Your task to perform on an android device: What's on my calendar today? Image 0: 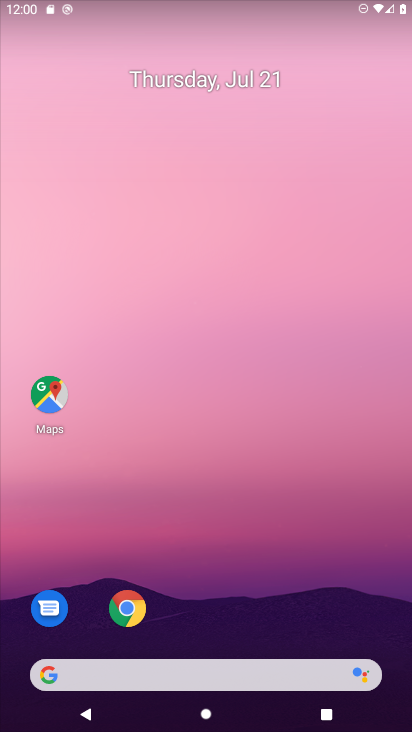
Step 0: press home button
Your task to perform on an android device: What's on my calendar today? Image 1: 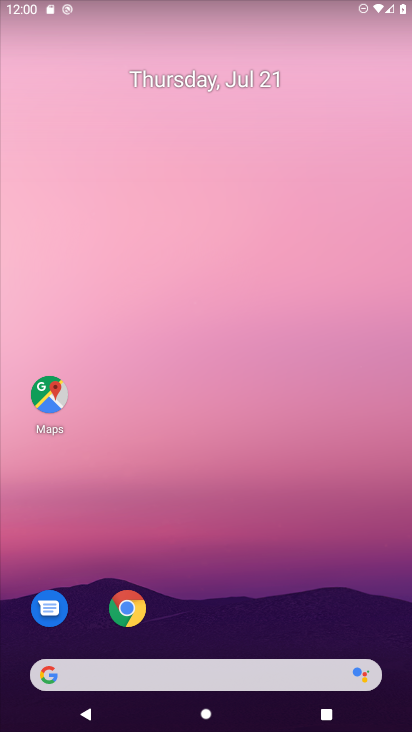
Step 1: drag from (234, 612) to (266, 138)
Your task to perform on an android device: What's on my calendar today? Image 2: 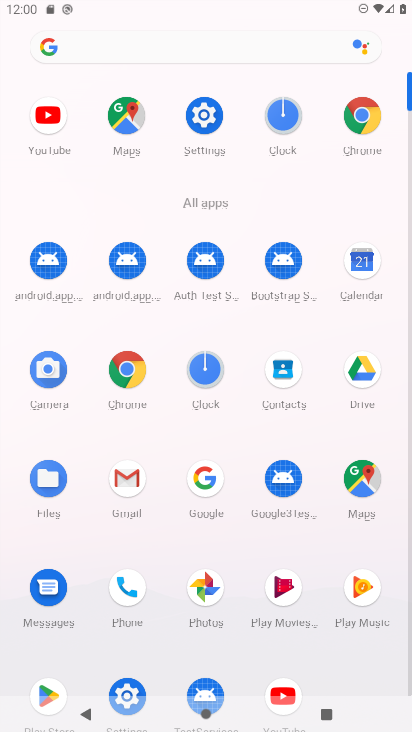
Step 2: click (367, 266)
Your task to perform on an android device: What's on my calendar today? Image 3: 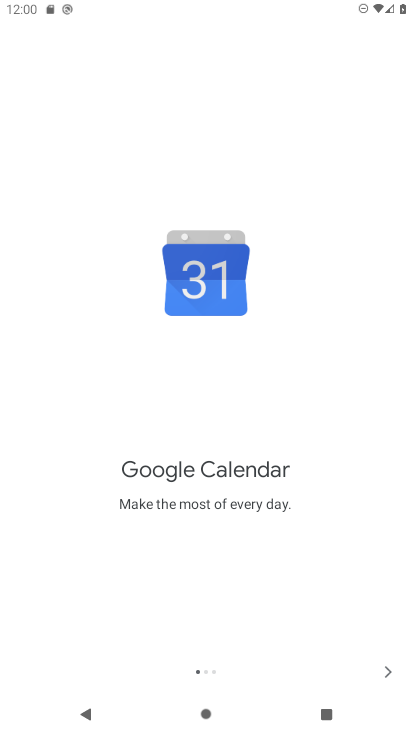
Step 3: click (388, 670)
Your task to perform on an android device: What's on my calendar today? Image 4: 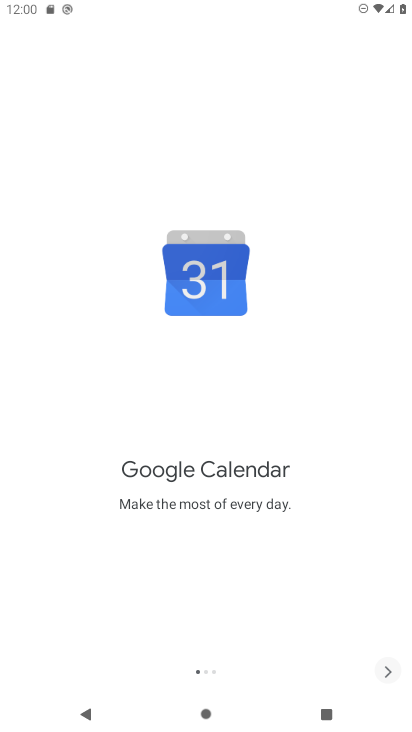
Step 4: click (388, 670)
Your task to perform on an android device: What's on my calendar today? Image 5: 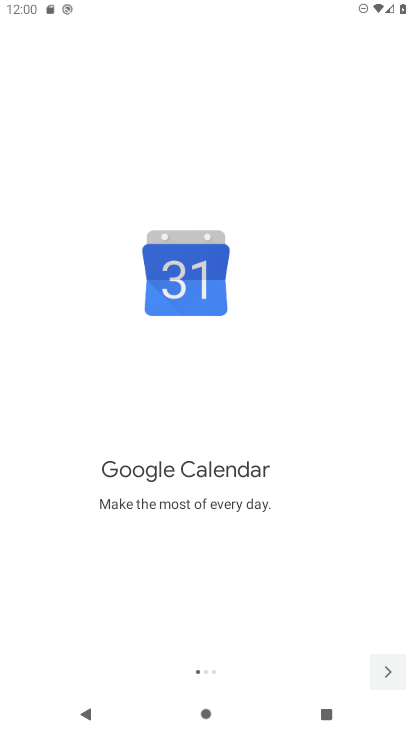
Step 5: click (388, 670)
Your task to perform on an android device: What's on my calendar today? Image 6: 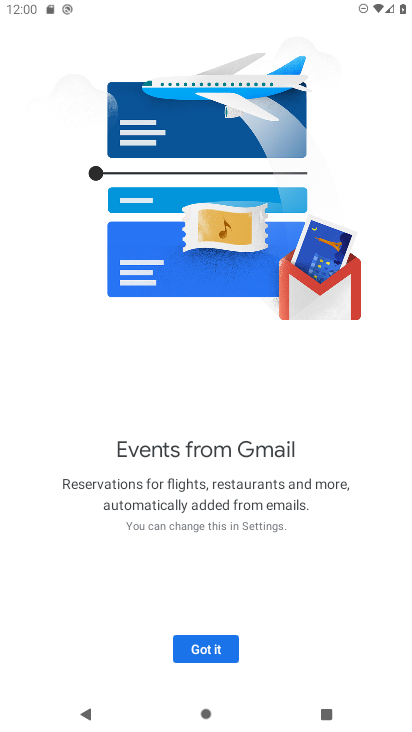
Step 6: click (385, 667)
Your task to perform on an android device: What's on my calendar today? Image 7: 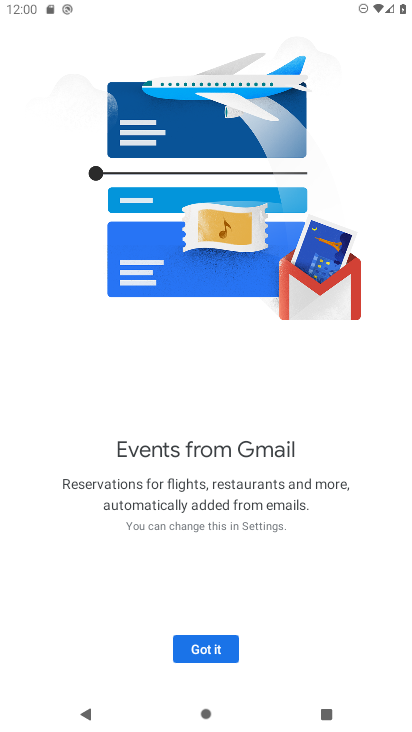
Step 7: click (204, 651)
Your task to perform on an android device: What's on my calendar today? Image 8: 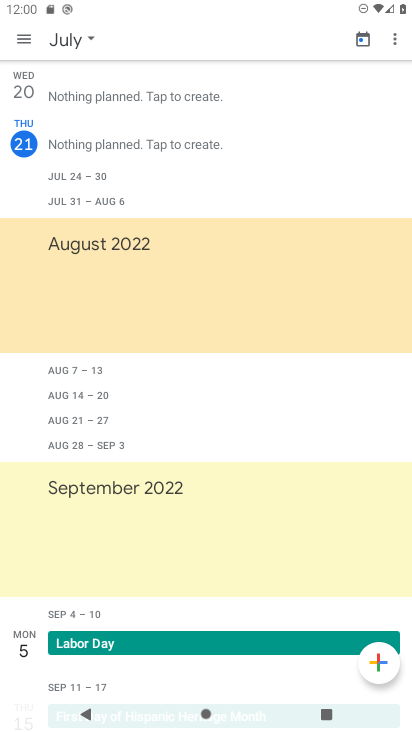
Step 8: click (22, 139)
Your task to perform on an android device: What's on my calendar today? Image 9: 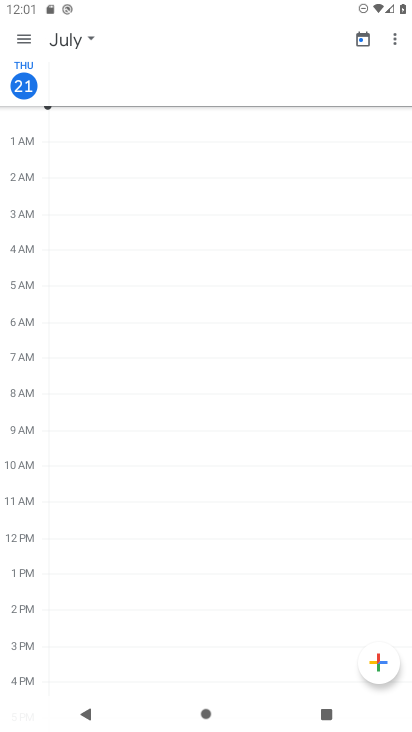
Step 9: task complete